Your task to perform on an android device: find photos in the google photos app Image 0: 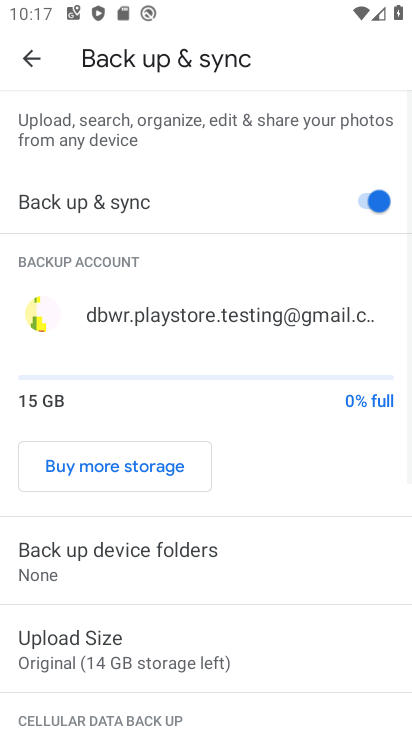
Step 0: press back button
Your task to perform on an android device: find photos in the google photos app Image 1: 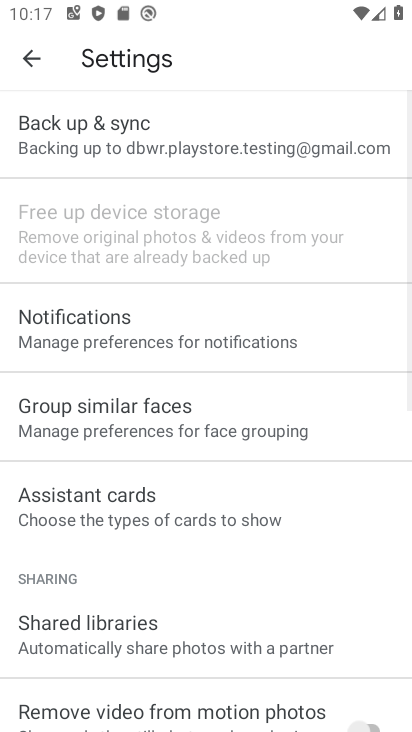
Step 1: press home button
Your task to perform on an android device: find photos in the google photos app Image 2: 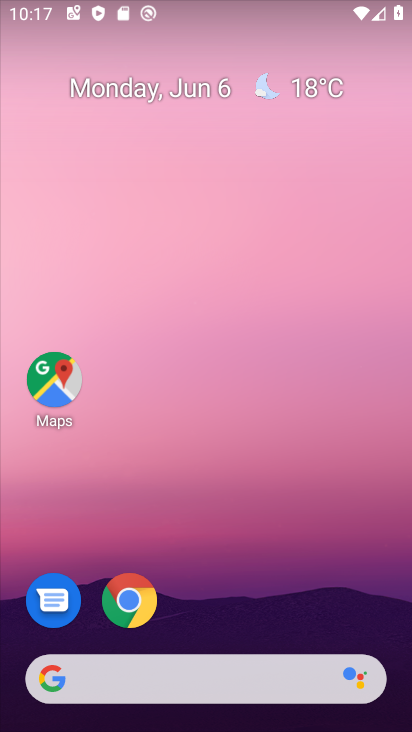
Step 2: drag from (244, 558) to (240, 43)
Your task to perform on an android device: find photos in the google photos app Image 3: 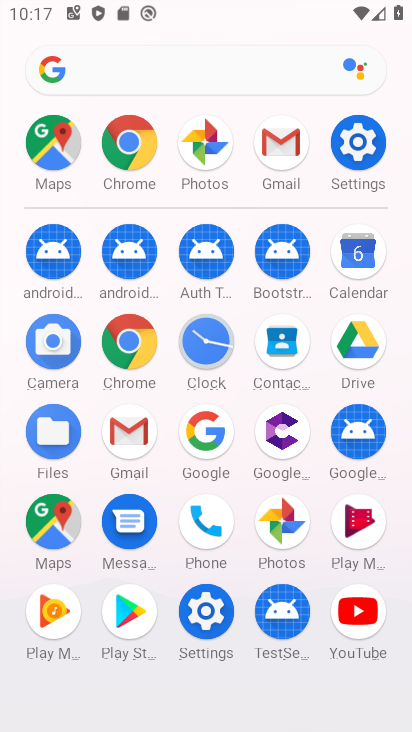
Step 3: click (279, 513)
Your task to perform on an android device: find photos in the google photos app Image 4: 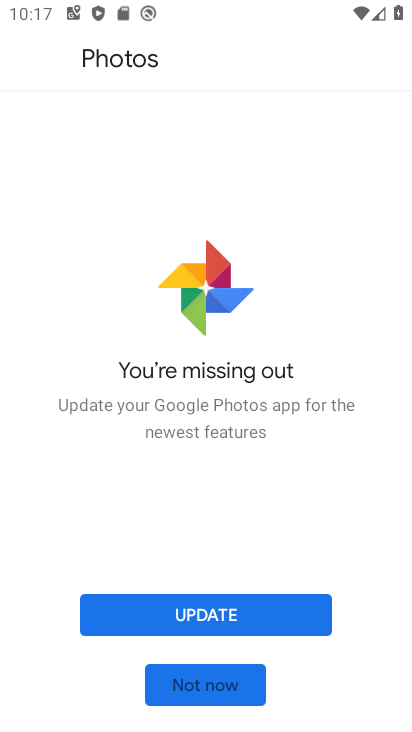
Step 4: click (213, 608)
Your task to perform on an android device: find photos in the google photos app Image 5: 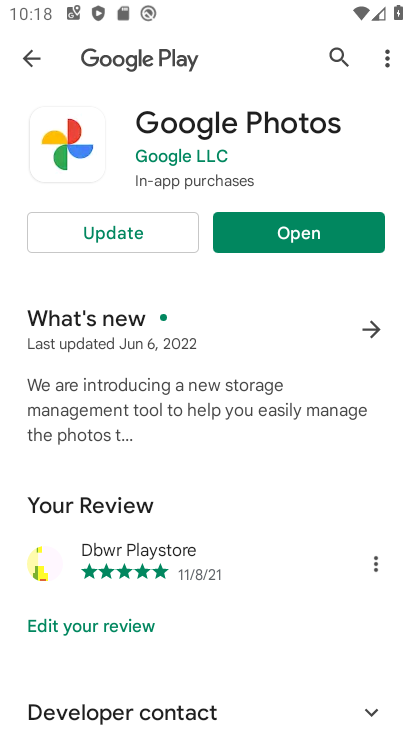
Step 5: click (122, 223)
Your task to perform on an android device: find photos in the google photos app Image 6: 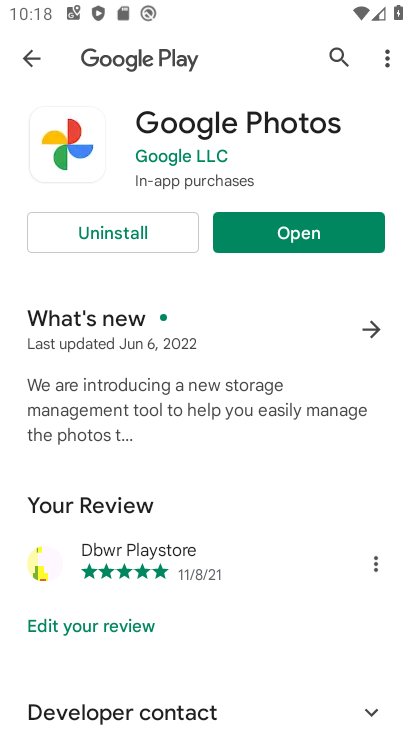
Step 6: click (319, 245)
Your task to perform on an android device: find photos in the google photos app Image 7: 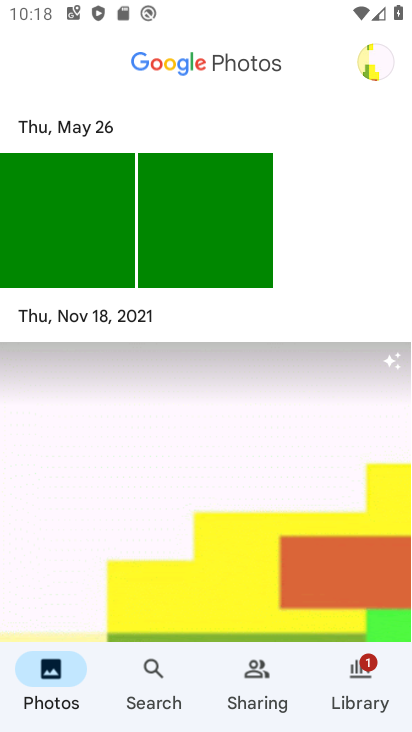
Step 7: task complete